Your task to perform on an android device: toggle show notifications on the lock screen Image 0: 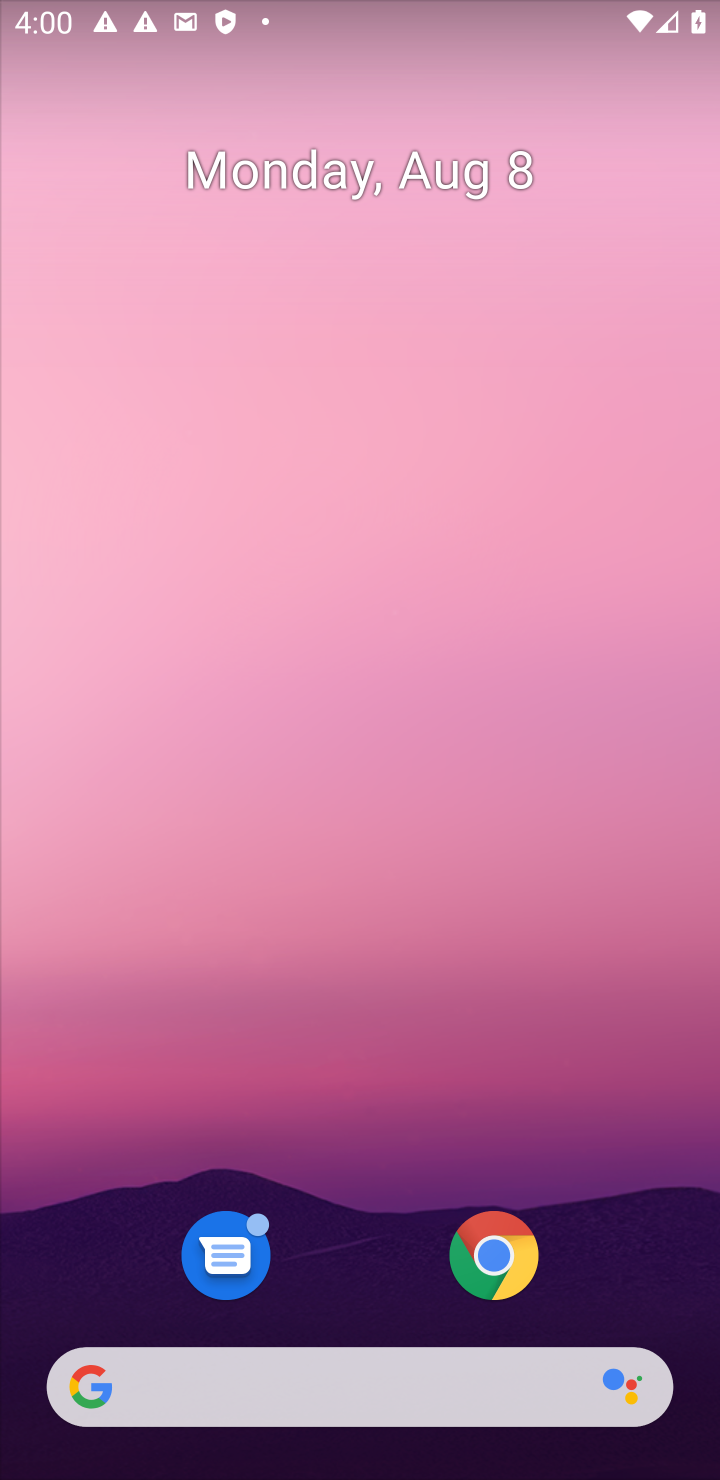
Step 0: drag from (368, 1370) to (351, 222)
Your task to perform on an android device: toggle show notifications on the lock screen Image 1: 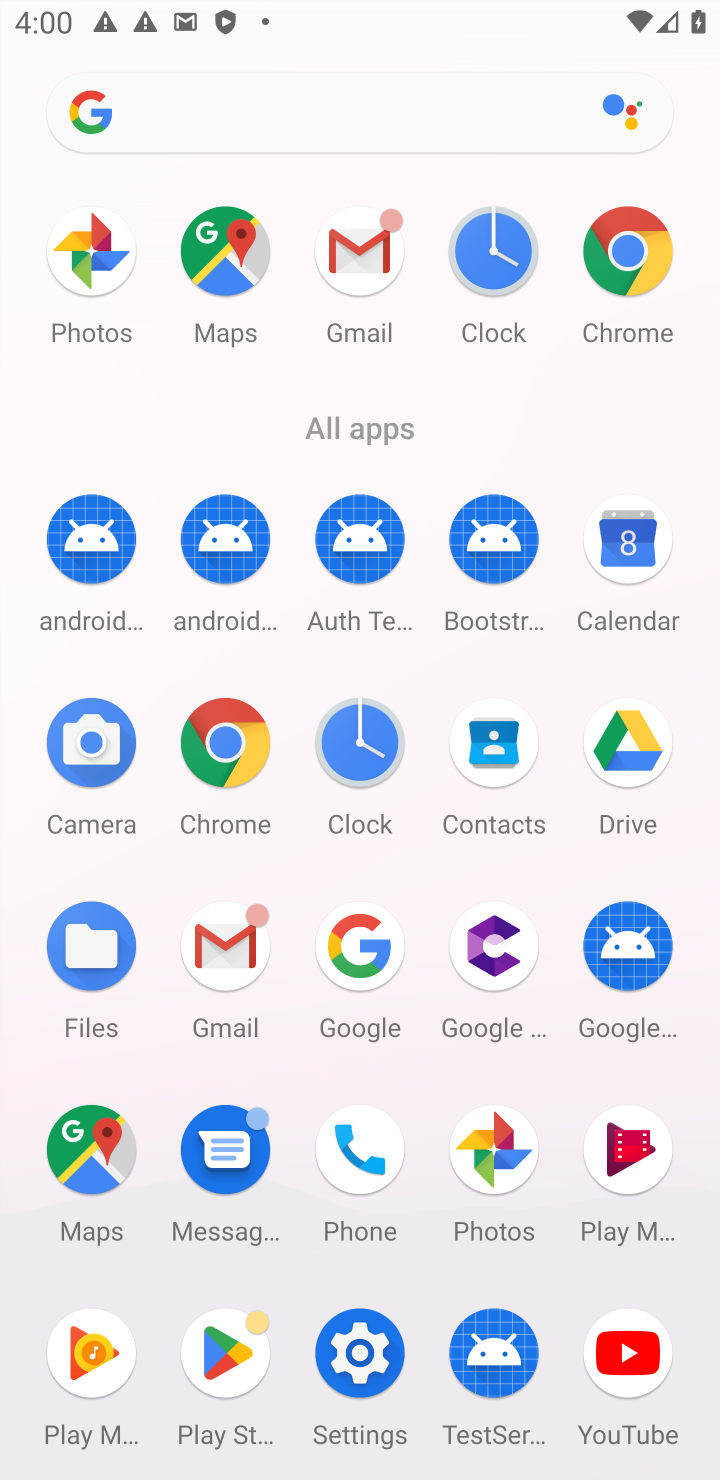
Step 1: click (361, 1347)
Your task to perform on an android device: toggle show notifications on the lock screen Image 2: 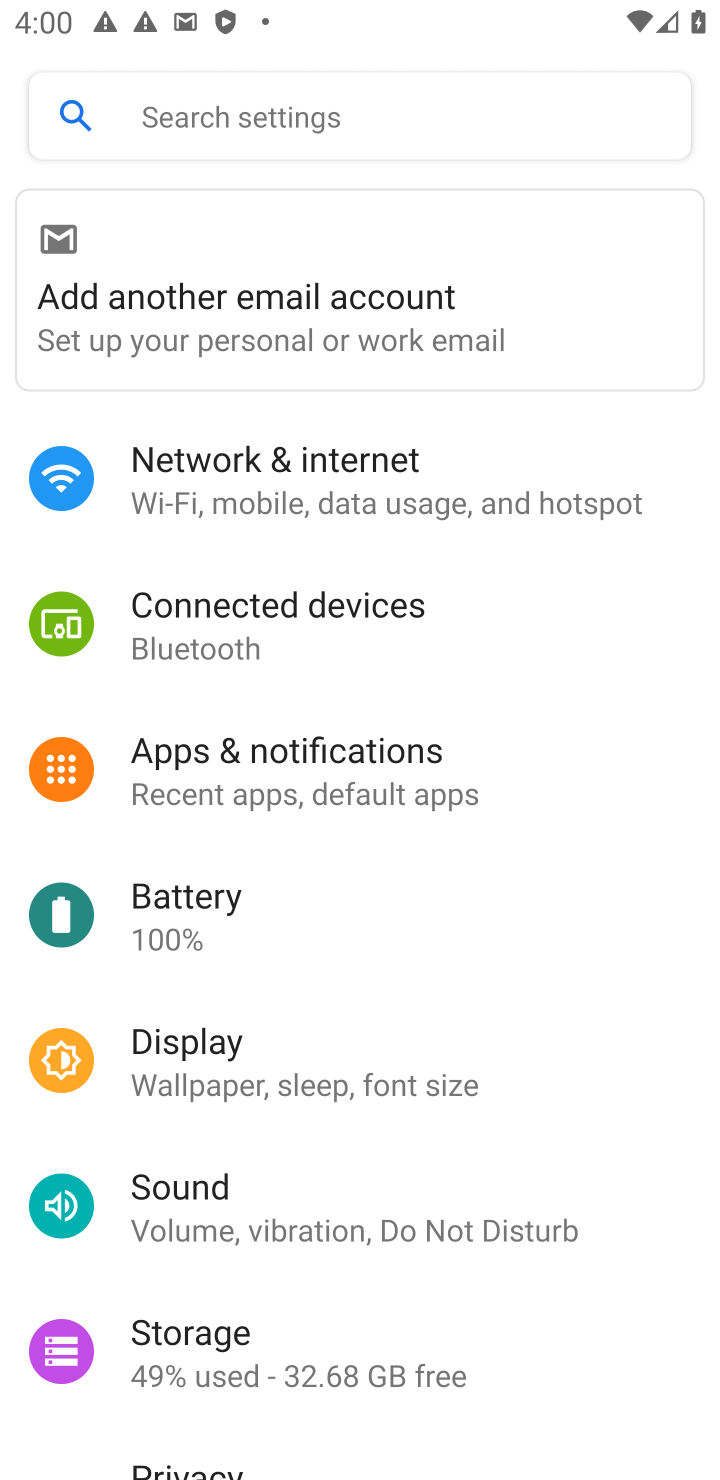
Step 2: click (348, 785)
Your task to perform on an android device: toggle show notifications on the lock screen Image 3: 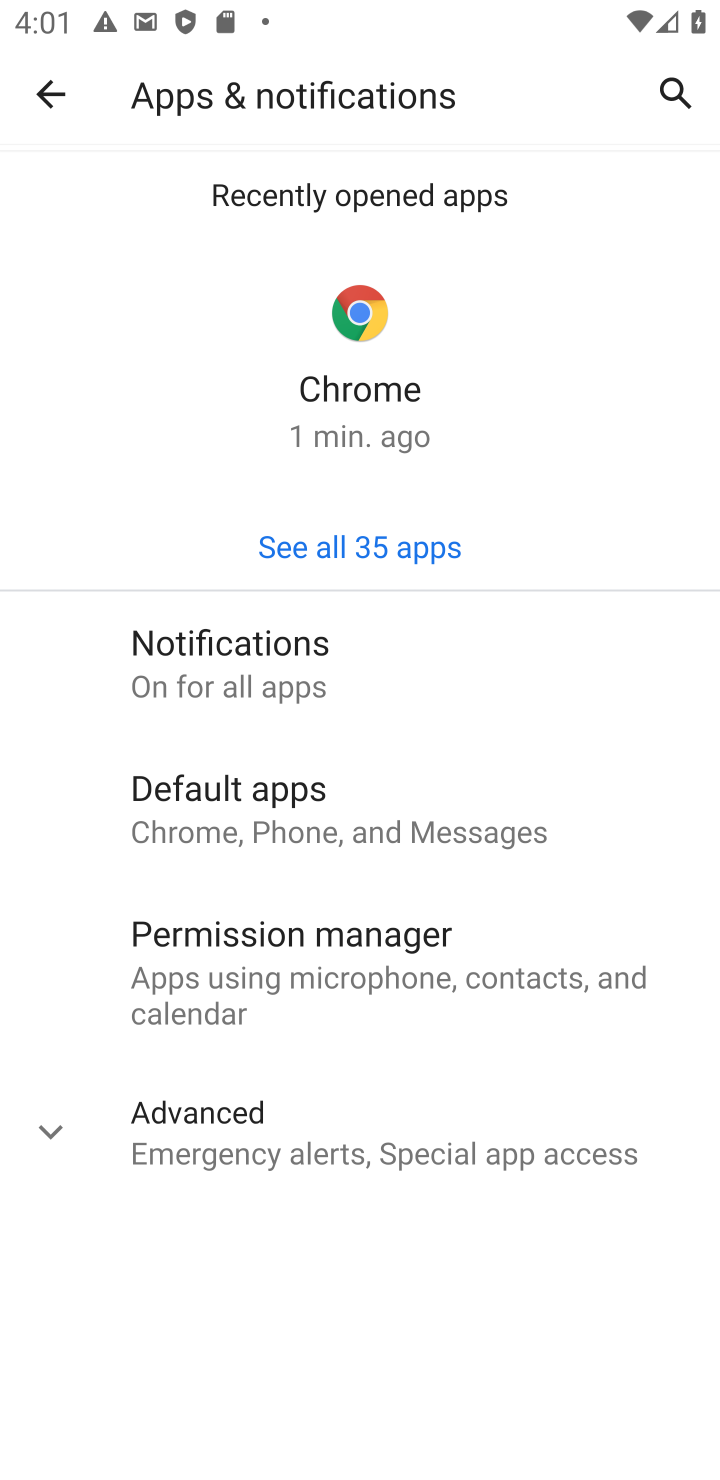
Step 3: click (215, 636)
Your task to perform on an android device: toggle show notifications on the lock screen Image 4: 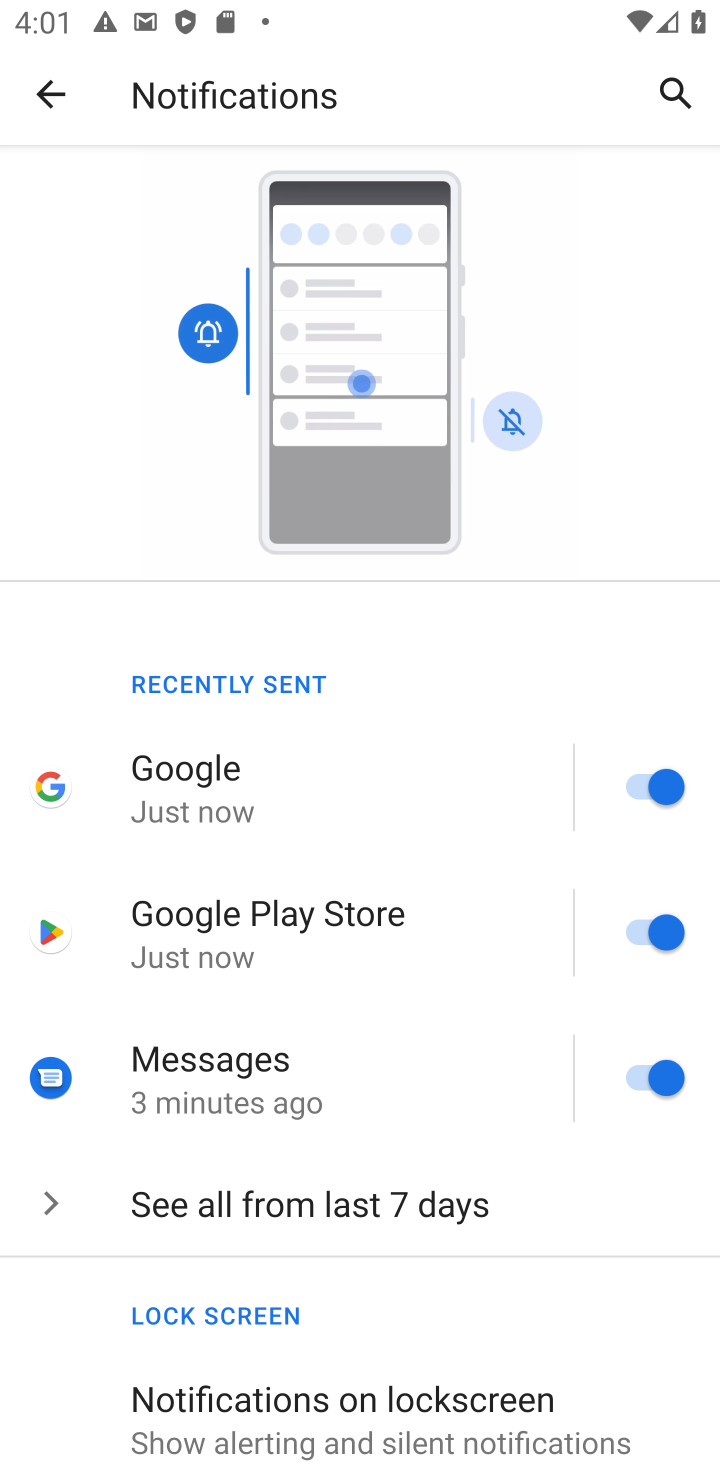
Step 4: click (312, 1412)
Your task to perform on an android device: toggle show notifications on the lock screen Image 5: 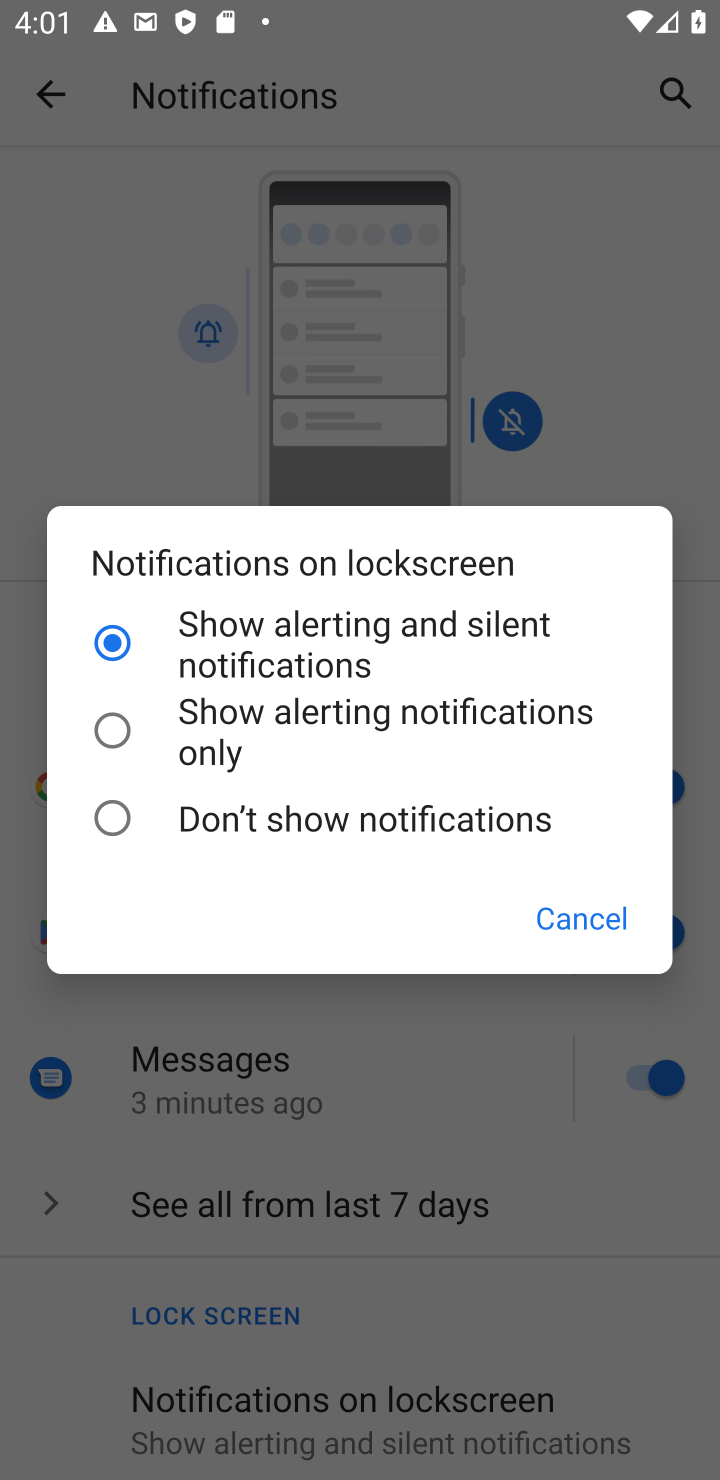
Step 5: click (125, 821)
Your task to perform on an android device: toggle show notifications on the lock screen Image 6: 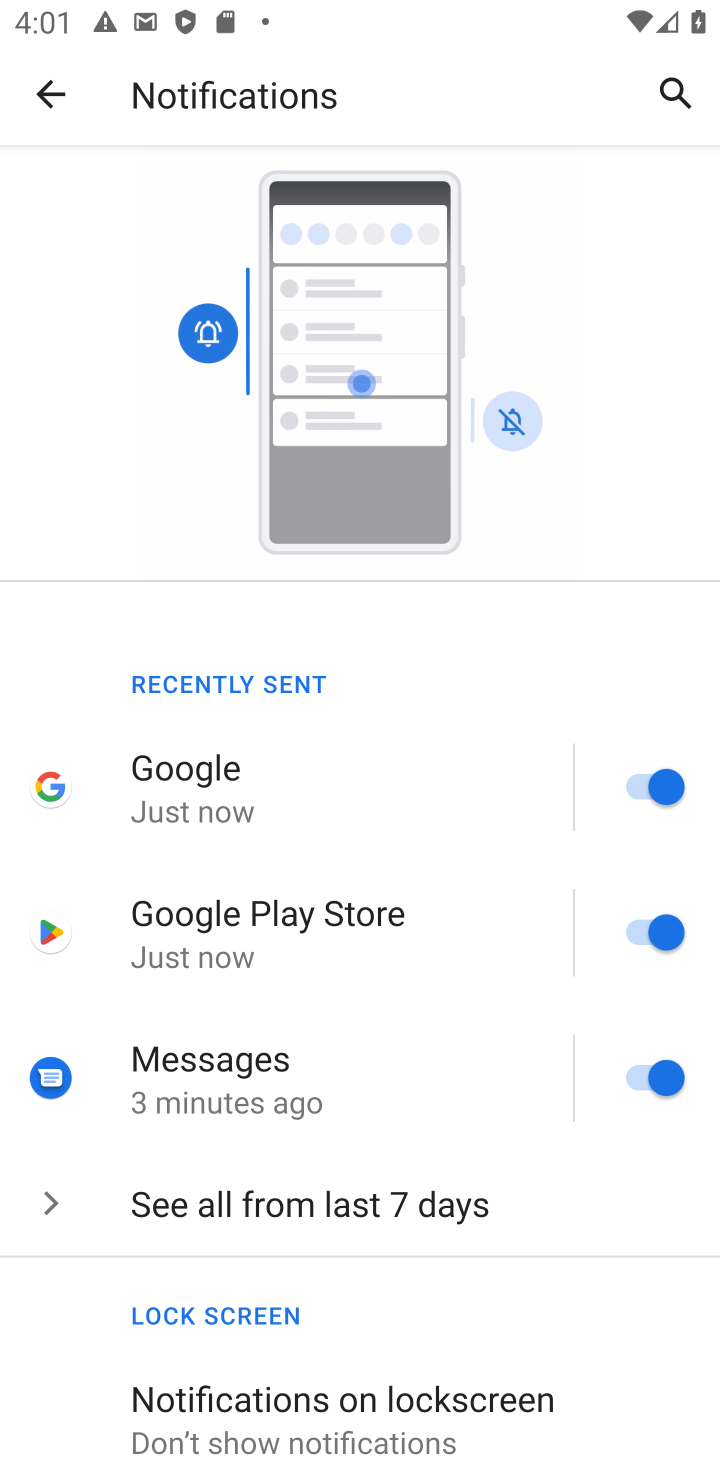
Step 6: task complete